Your task to perform on an android device: Is it going to rain this weekend? Image 0: 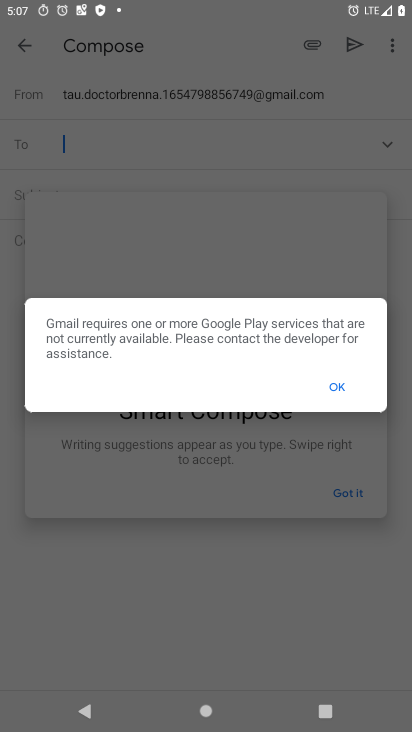
Step 0: press home button
Your task to perform on an android device: Is it going to rain this weekend? Image 1: 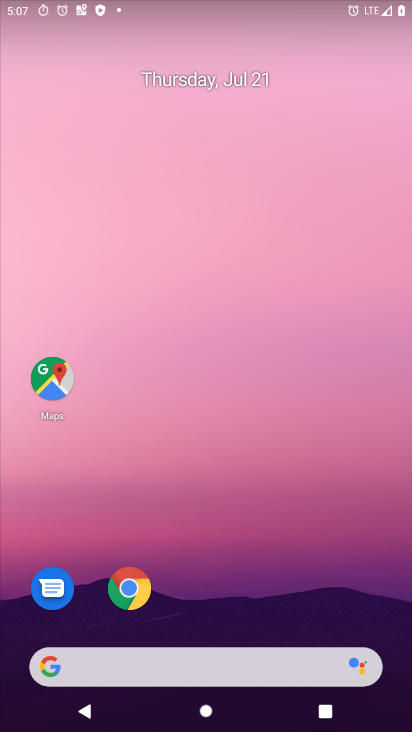
Step 1: drag from (274, 542) to (305, 96)
Your task to perform on an android device: Is it going to rain this weekend? Image 2: 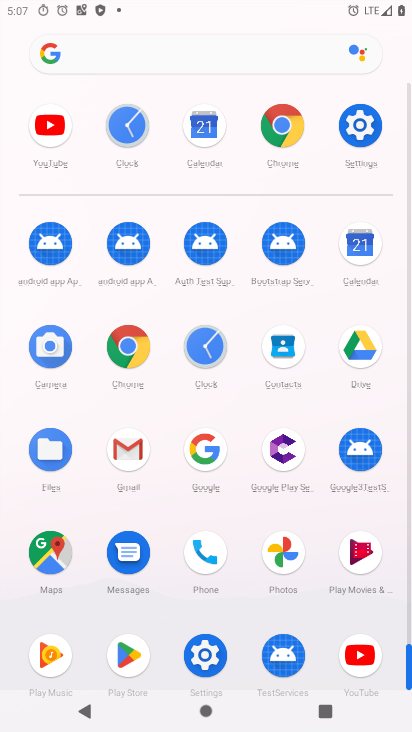
Step 2: click (130, 339)
Your task to perform on an android device: Is it going to rain this weekend? Image 3: 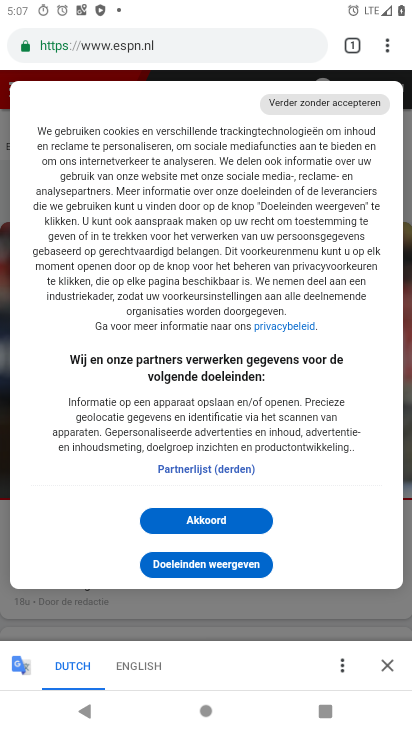
Step 3: click (106, 49)
Your task to perform on an android device: Is it going to rain this weekend? Image 4: 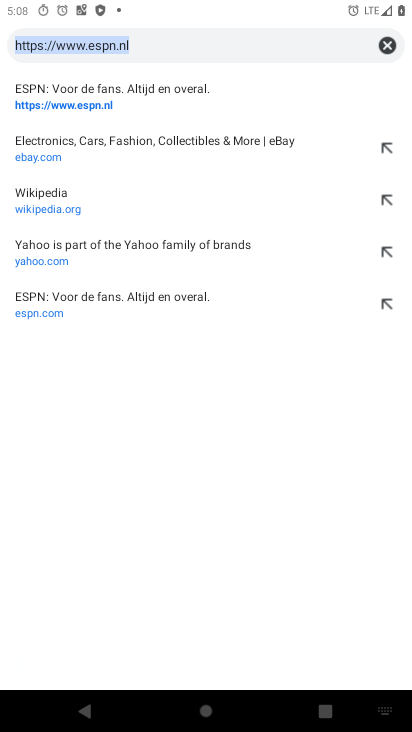
Step 4: click (393, 50)
Your task to perform on an android device: Is it going to rain this weekend? Image 5: 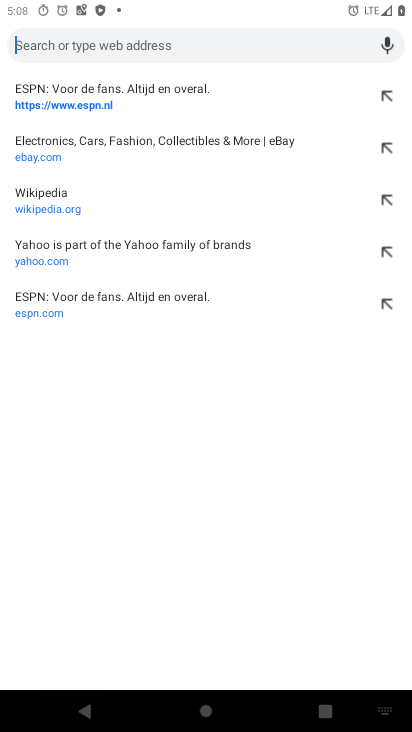
Step 5: type "Is it going to rain this weekend?"
Your task to perform on an android device: Is it going to rain this weekend? Image 6: 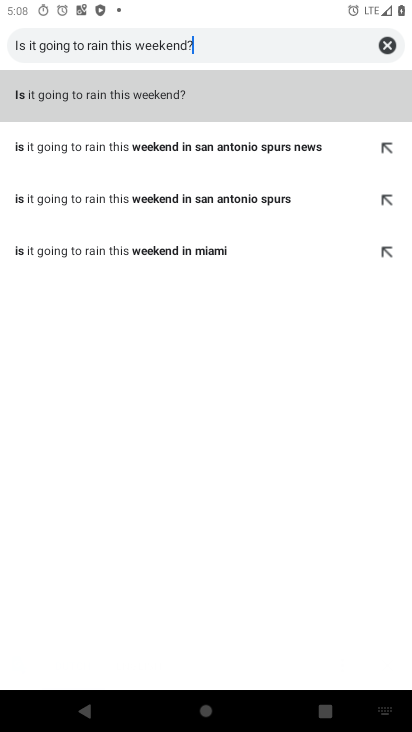
Step 6: click (57, 90)
Your task to perform on an android device: Is it going to rain this weekend? Image 7: 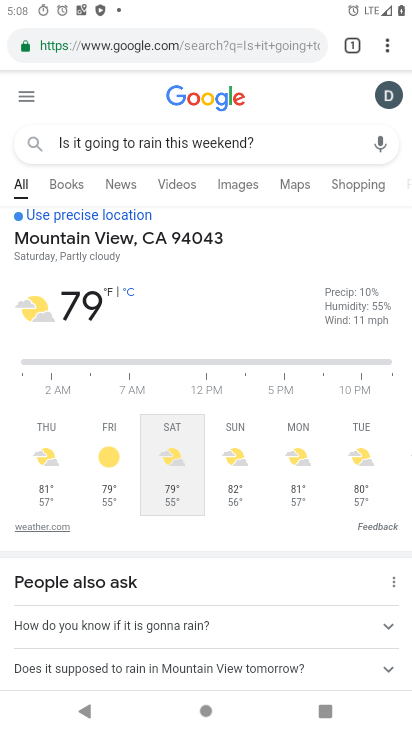
Step 7: task complete